Your task to perform on an android device: Open network settings Image 0: 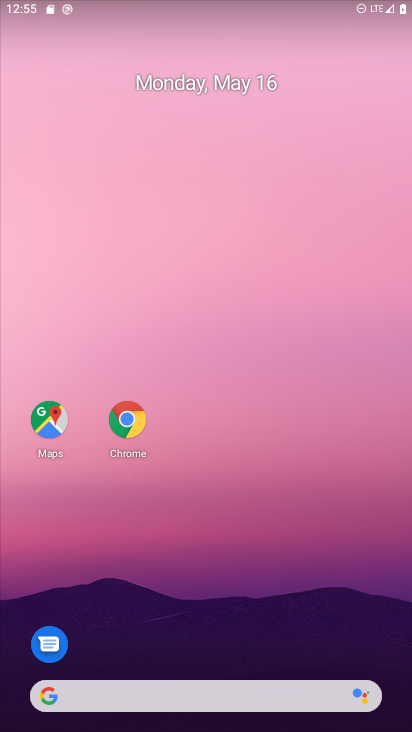
Step 0: click (243, 102)
Your task to perform on an android device: Open network settings Image 1: 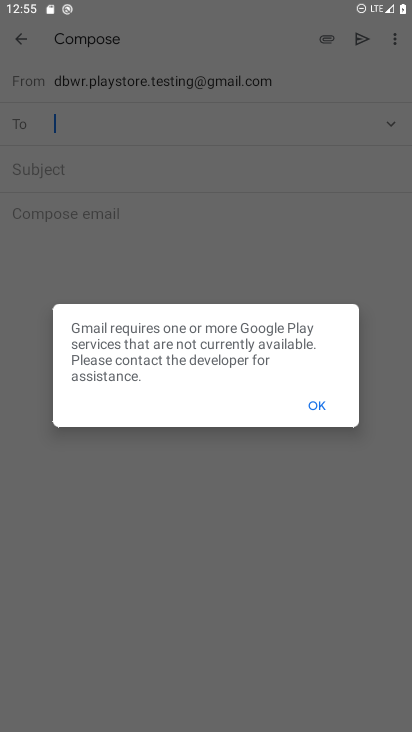
Step 1: press home button
Your task to perform on an android device: Open network settings Image 2: 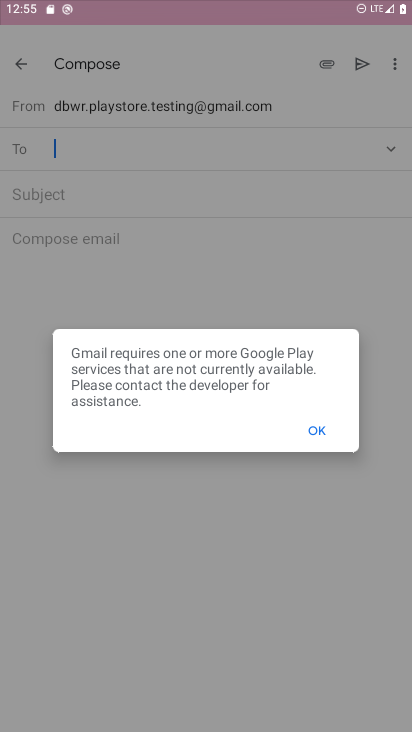
Step 2: drag from (146, 646) to (176, 28)
Your task to perform on an android device: Open network settings Image 3: 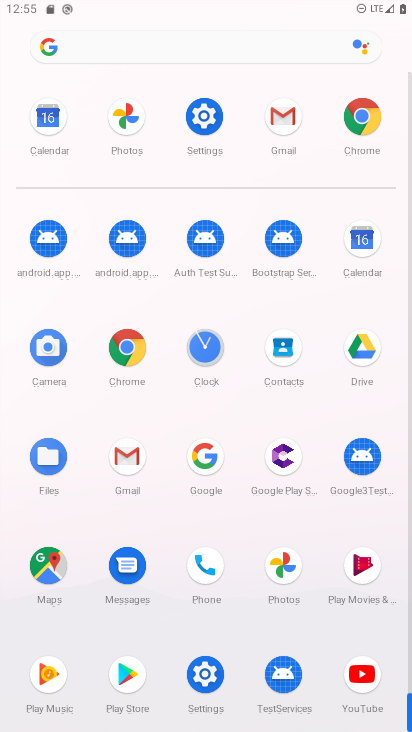
Step 3: click (204, 113)
Your task to perform on an android device: Open network settings Image 4: 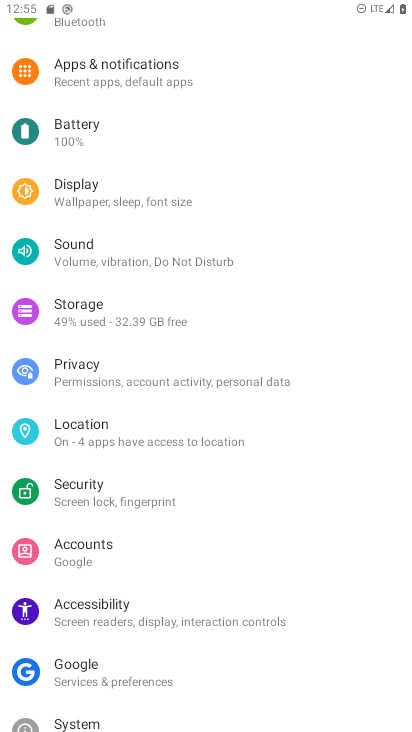
Step 4: drag from (113, 121) to (237, 611)
Your task to perform on an android device: Open network settings Image 5: 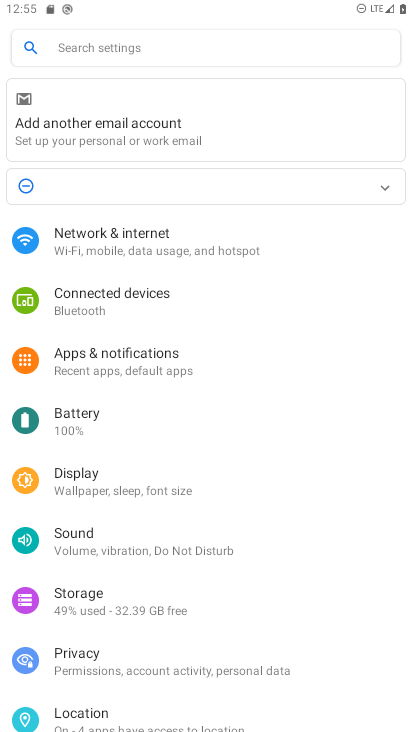
Step 5: click (125, 250)
Your task to perform on an android device: Open network settings Image 6: 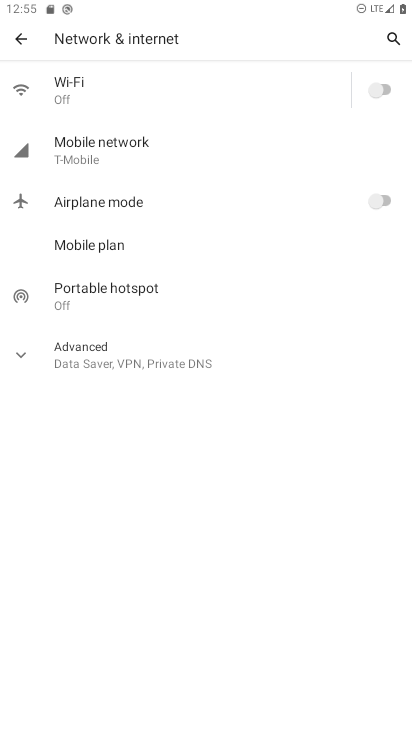
Step 6: click (224, 147)
Your task to perform on an android device: Open network settings Image 7: 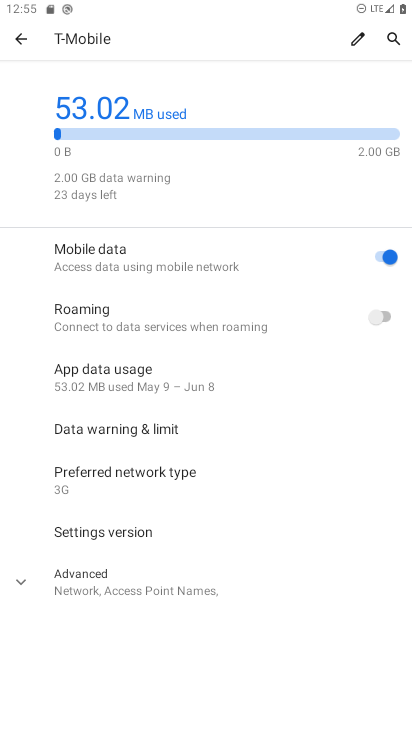
Step 7: click (22, 44)
Your task to perform on an android device: Open network settings Image 8: 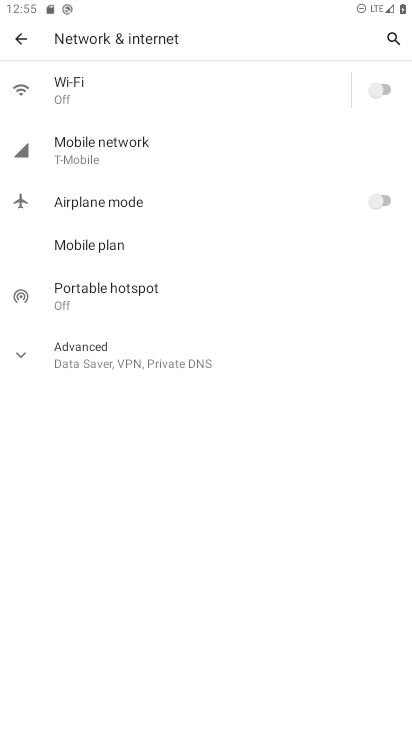
Step 8: task complete